Your task to perform on an android device: turn pop-ups on in chrome Image 0: 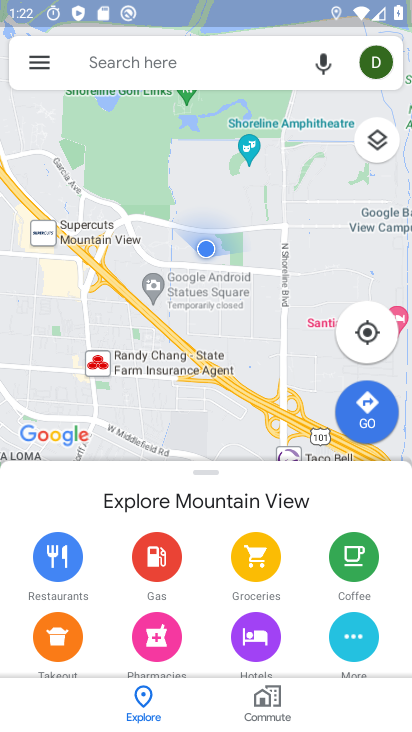
Step 0: press back button
Your task to perform on an android device: turn pop-ups on in chrome Image 1: 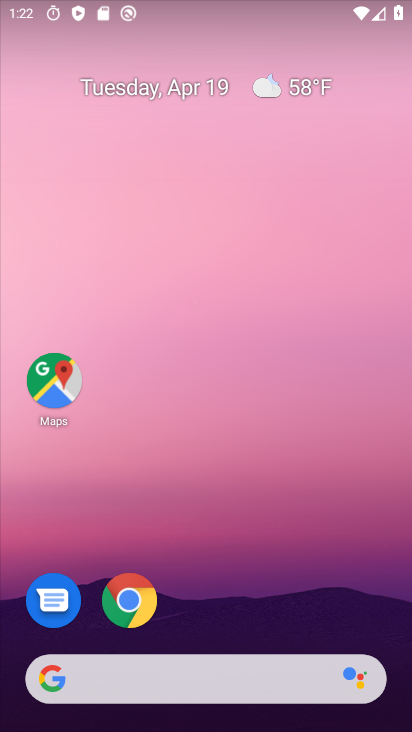
Step 1: drag from (245, 699) to (344, 230)
Your task to perform on an android device: turn pop-ups on in chrome Image 2: 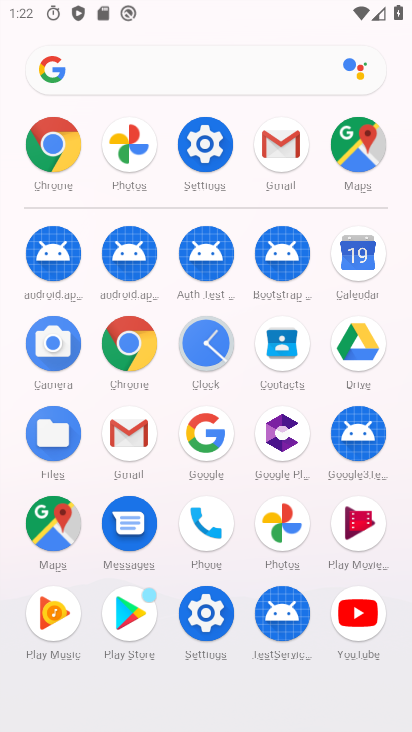
Step 2: click (39, 138)
Your task to perform on an android device: turn pop-ups on in chrome Image 3: 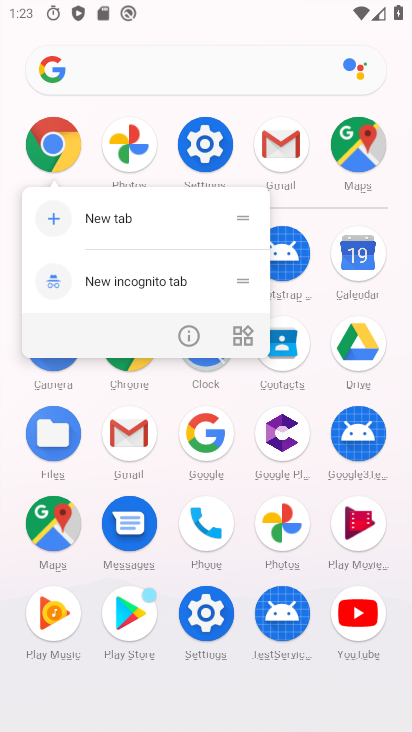
Step 3: click (53, 154)
Your task to perform on an android device: turn pop-ups on in chrome Image 4: 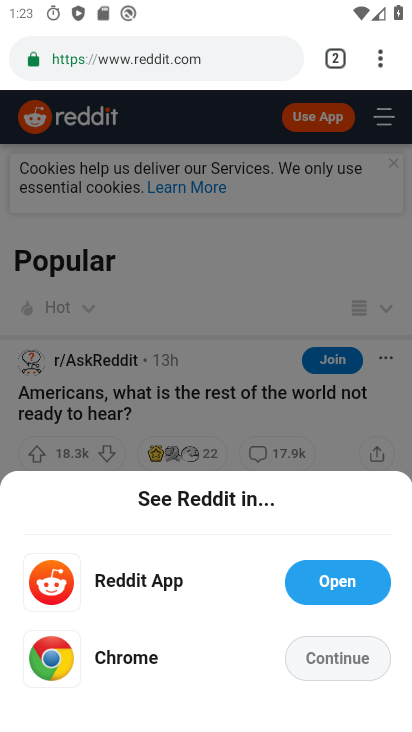
Step 4: click (323, 62)
Your task to perform on an android device: turn pop-ups on in chrome Image 5: 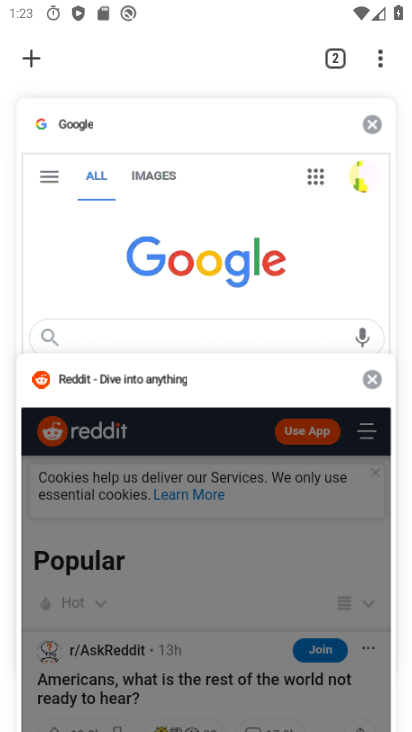
Step 5: click (111, 185)
Your task to perform on an android device: turn pop-ups on in chrome Image 6: 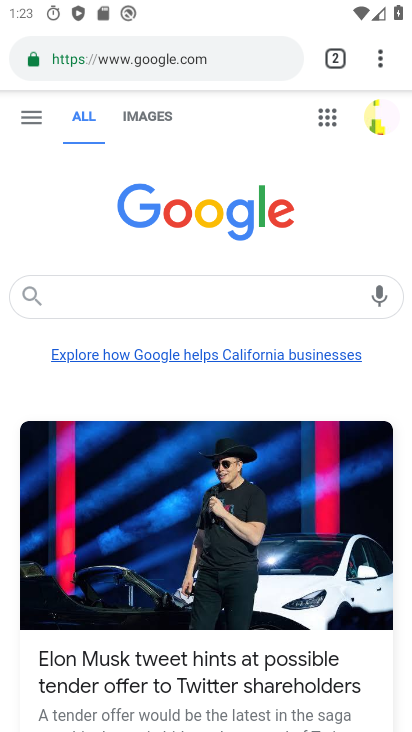
Step 6: click (385, 49)
Your task to perform on an android device: turn pop-ups on in chrome Image 7: 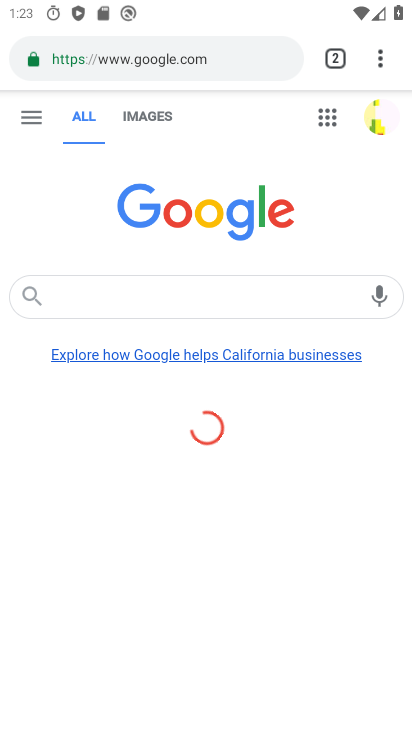
Step 7: click (377, 58)
Your task to perform on an android device: turn pop-ups on in chrome Image 8: 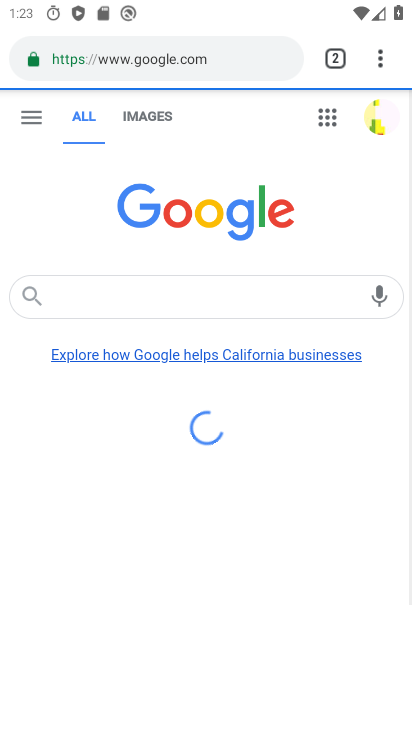
Step 8: click (377, 58)
Your task to perform on an android device: turn pop-ups on in chrome Image 9: 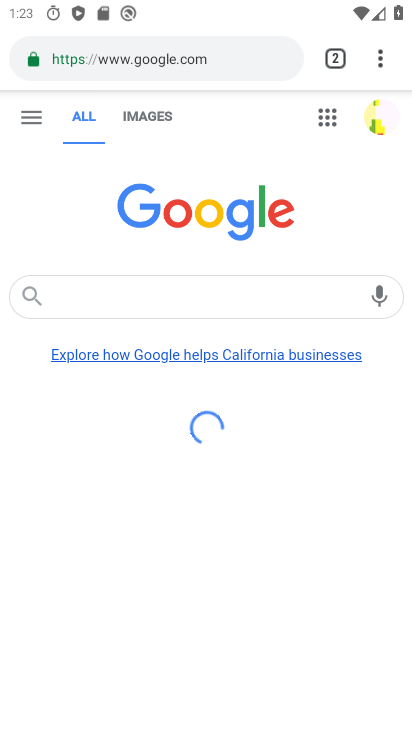
Step 9: click (377, 58)
Your task to perform on an android device: turn pop-ups on in chrome Image 10: 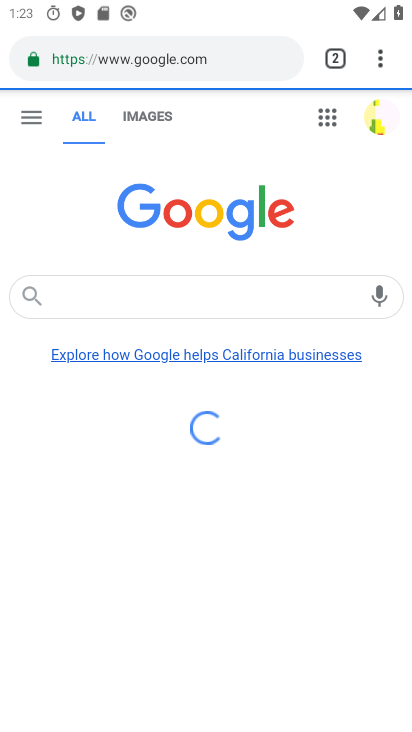
Step 10: click (377, 58)
Your task to perform on an android device: turn pop-ups on in chrome Image 11: 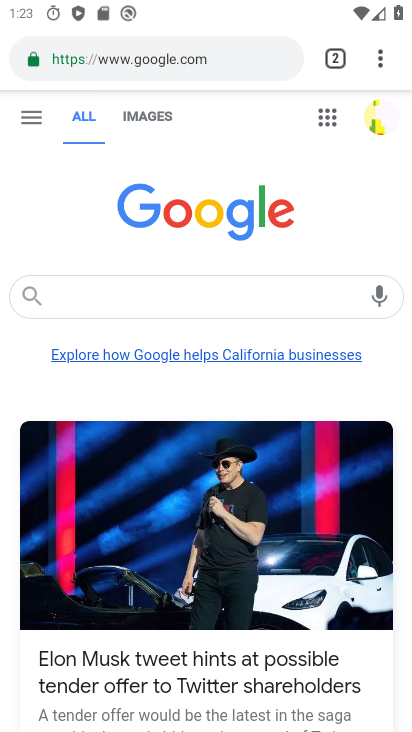
Step 11: click (332, 45)
Your task to perform on an android device: turn pop-ups on in chrome Image 12: 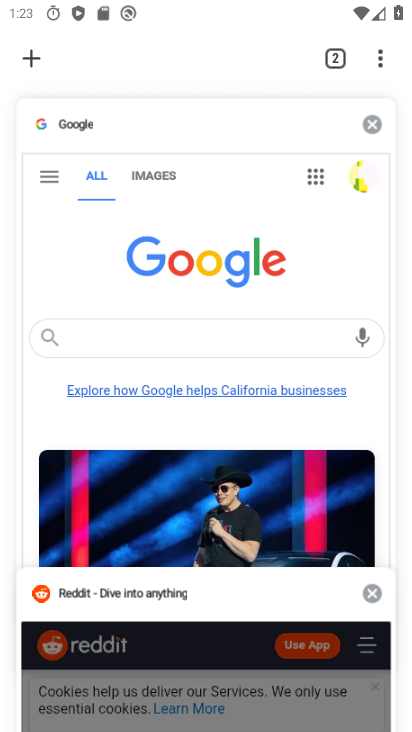
Step 12: click (32, 51)
Your task to perform on an android device: turn pop-ups on in chrome Image 13: 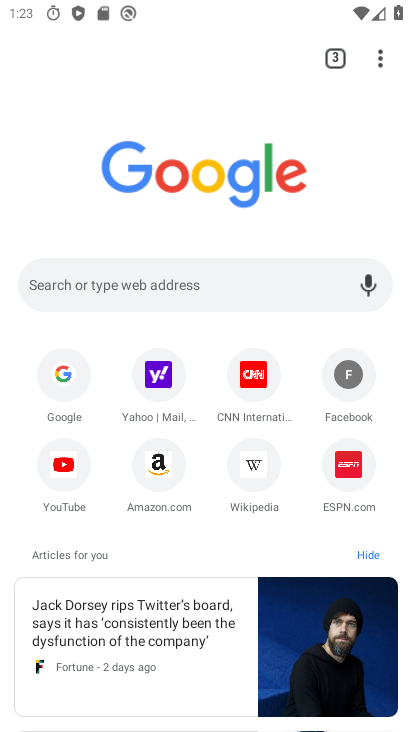
Step 13: click (380, 54)
Your task to perform on an android device: turn pop-ups on in chrome Image 14: 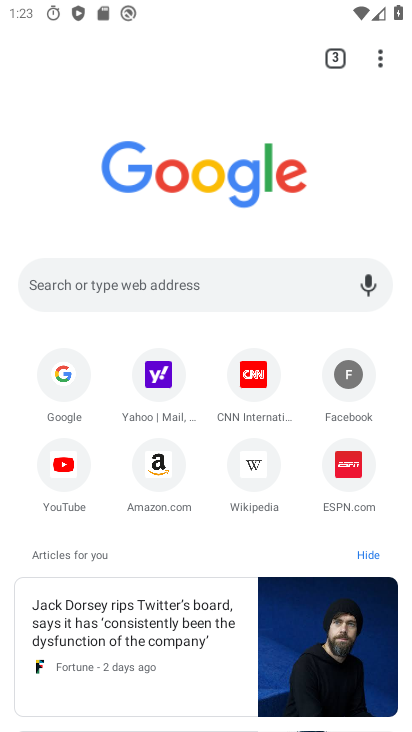
Step 14: click (377, 60)
Your task to perform on an android device: turn pop-ups on in chrome Image 15: 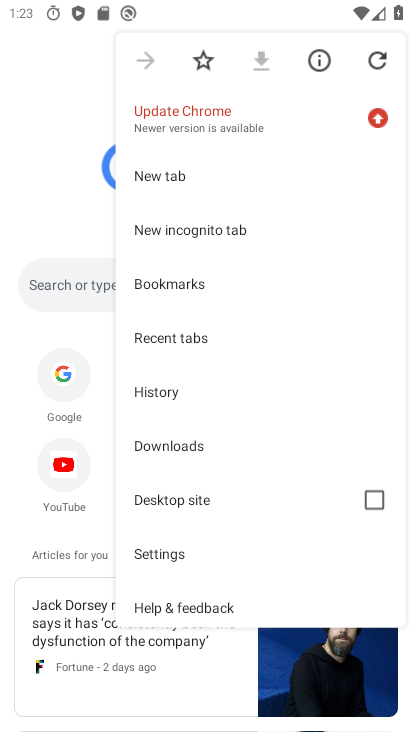
Step 15: click (160, 559)
Your task to perform on an android device: turn pop-ups on in chrome Image 16: 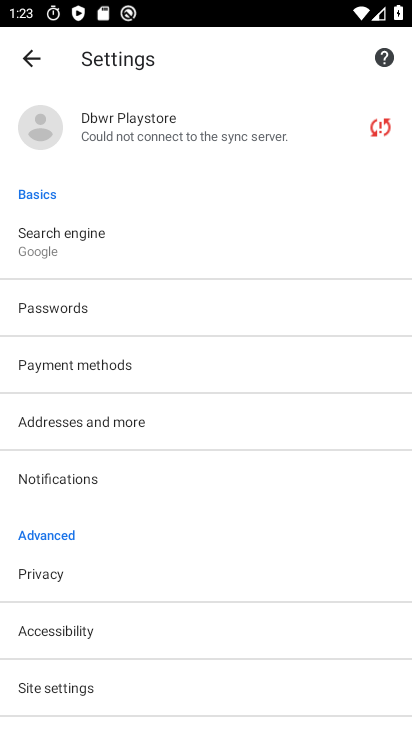
Step 16: click (83, 691)
Your task to perform on an android device: turn pop-ups on in chrome Image 17: 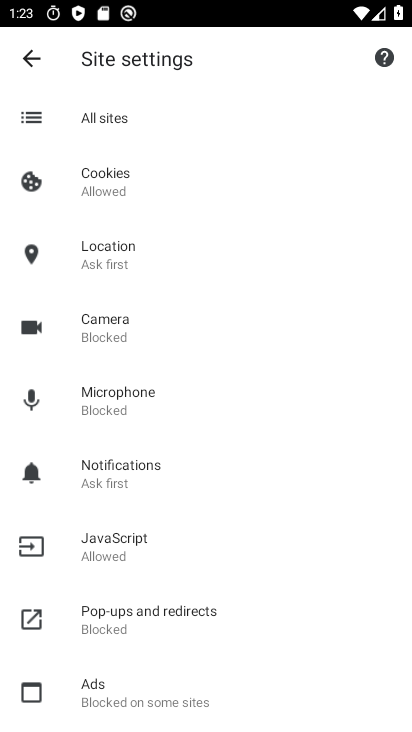
Step 17: click (117, 630)
Your task to perform on an android device: turn pop-ups on in chrome Image 18: 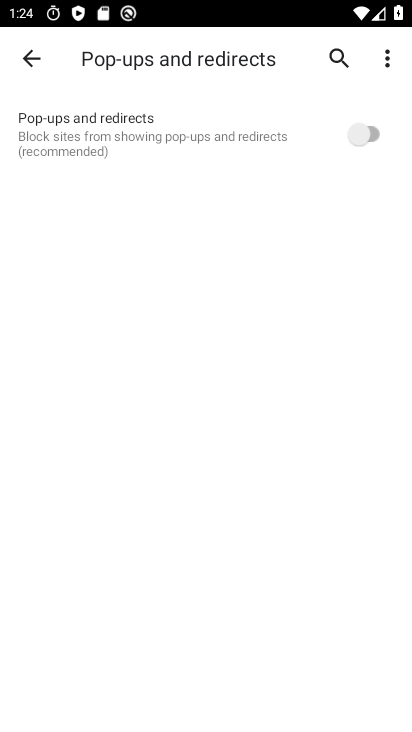
Step 18: click (295, 132)
Your task to perform on an android device: turn pop-ups on in chrome Image 19: 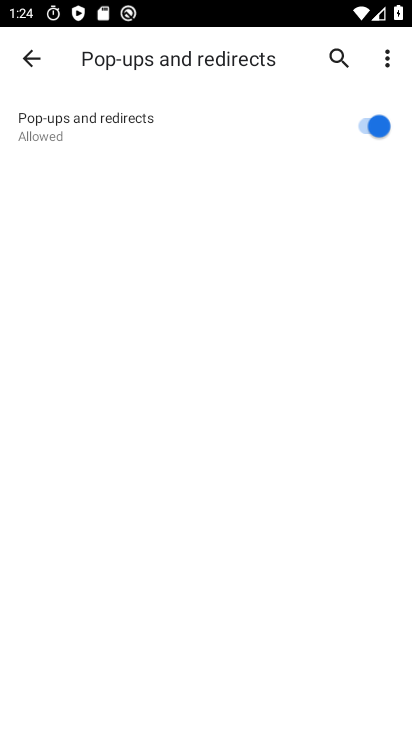
Step 19: task complete